Your task to perform on an android device: Go to calendar. Show me events next week Image 0: 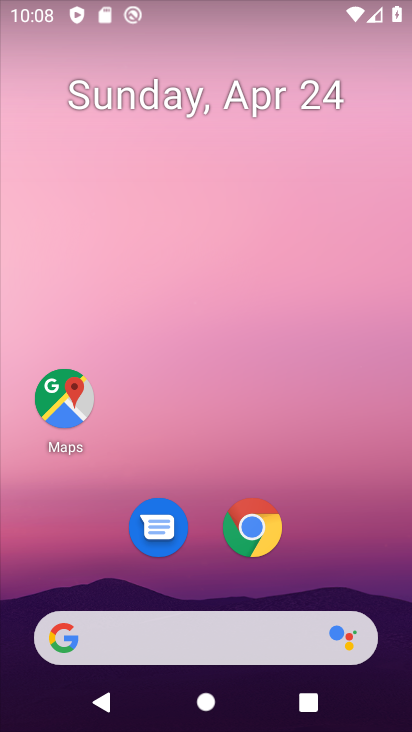
Step 0: drag from (167, 515) to (338, 54)
Your task to perform on an android device: Go to calendar. Show me events next week Image 1: 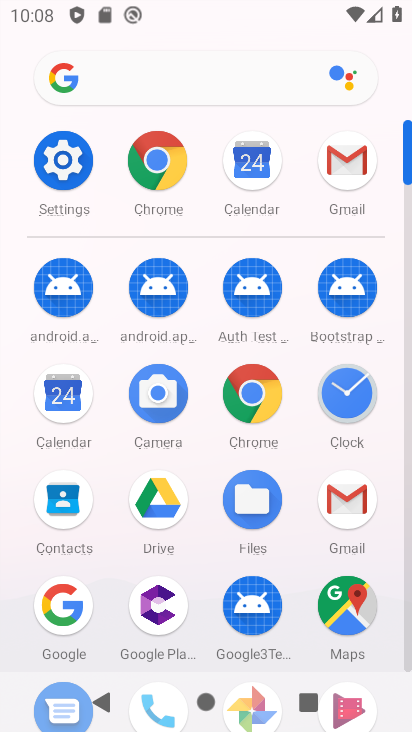
Step 1: click (52, 416)
Your task to perform on an android device: Go to calendar. Show me events next week Image 2: 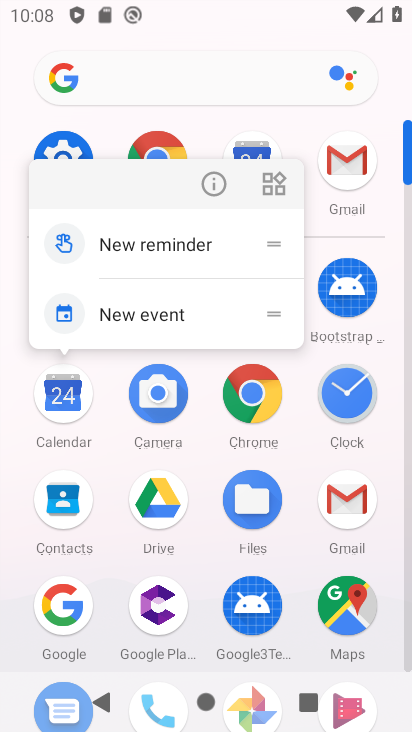
Step 2: click (66, 408)
Your task to perform on an android device: Go to calendar. Show me events next week Image 3: 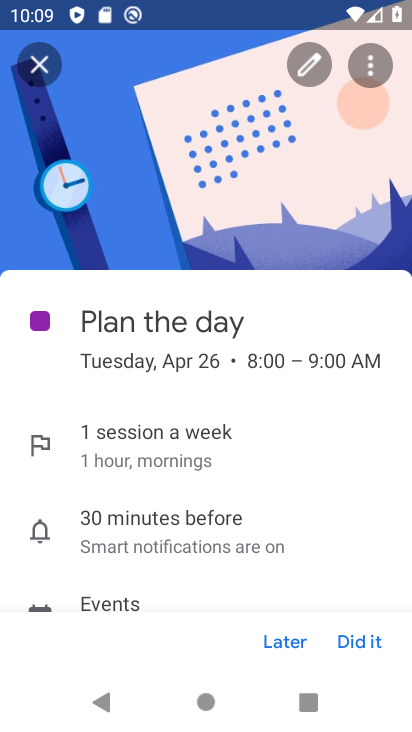
Step 3: click (47, 64)
Your task to perform on an android device: Go to calendar. Show me events next week Image 4: 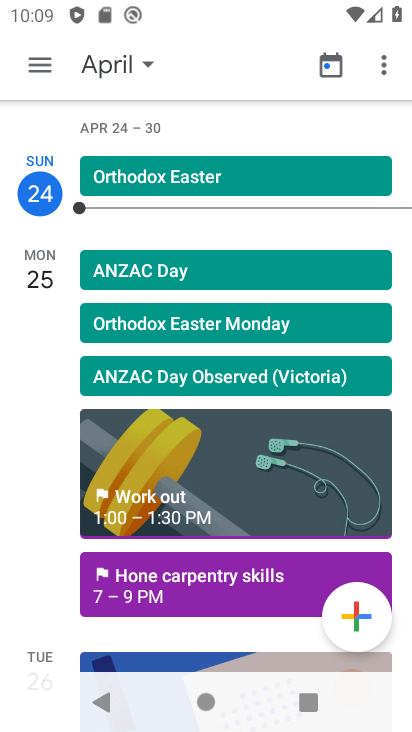
Step 4: drag from (197, 619) to (257, 269)
Your task to perform on an android device: Go to calendar. Show me events next week Image 5: 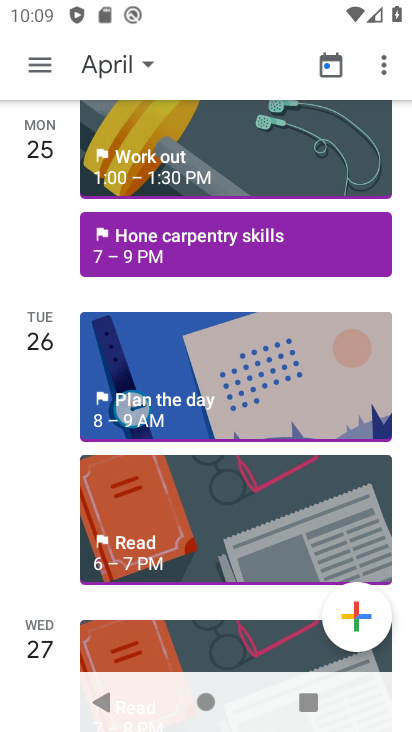
Step 5: click (118, 66)
Your task to perform on an android device: Go to calendar. Show me events next week Image 6: 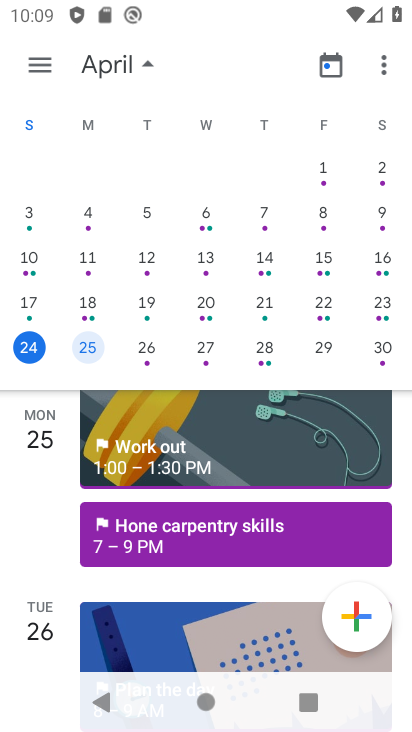
Step 6: drag from (371, 303) to (34, 268)
Your task to perform on an android device: Go to calendar. Show me events next week Image 7: 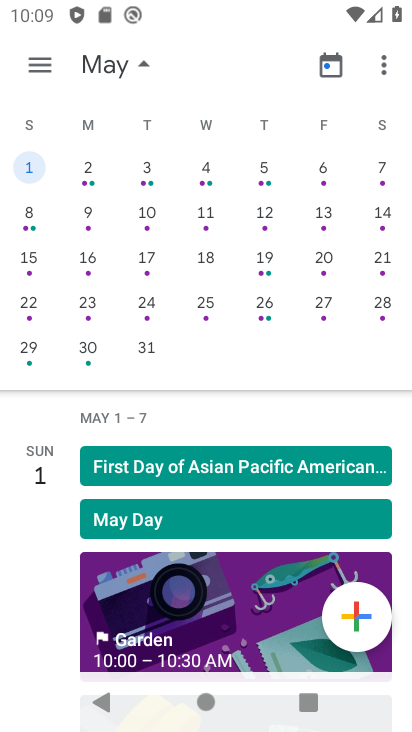
Step 7: click (91, 176)
Your task to perform on an android device: Go to calendar. Show me events next week Image 8: 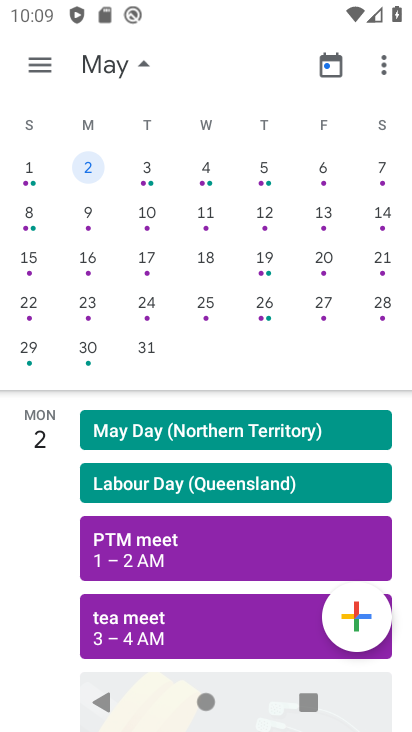
Step 8: click (169, 484)
Your task to perform on an android device: Go to calendar. Show me events next week Image 9: 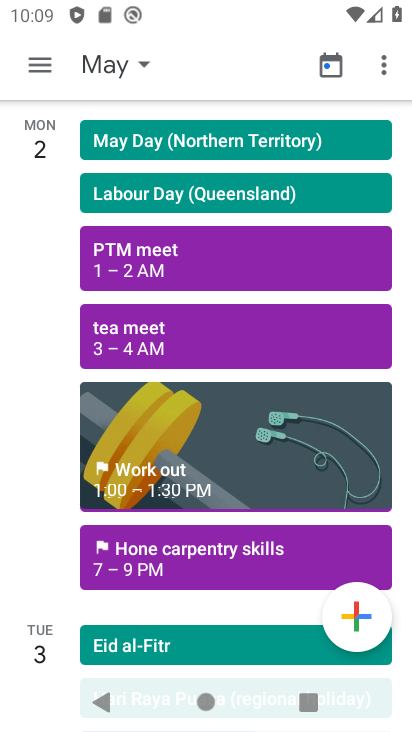
Step 9: click (152, 246)
Your task to perform on an android device: Go to calendar. Show me events next week Image 10: 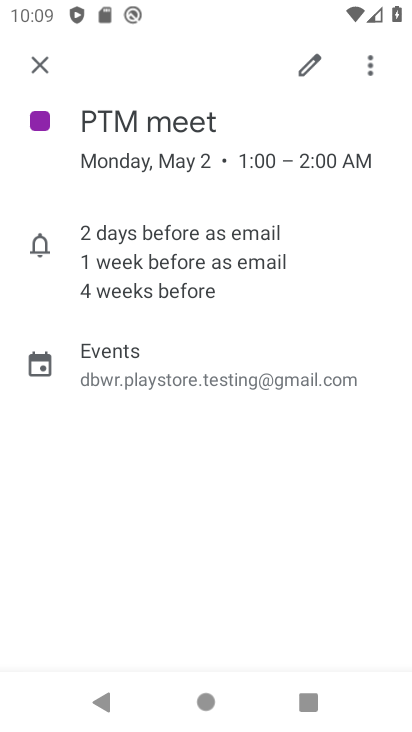
Step 10: task complete